Your task to perform on an android device: open a bookmark in the chrome app Image 0: 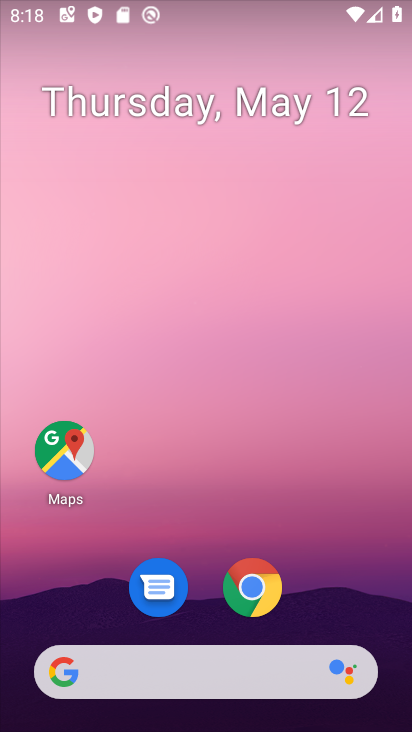
Step 0: drag from (351, 516) to (327, 140)
Your task to perform on an android device: open a bookmark in the chrome app Image 1: 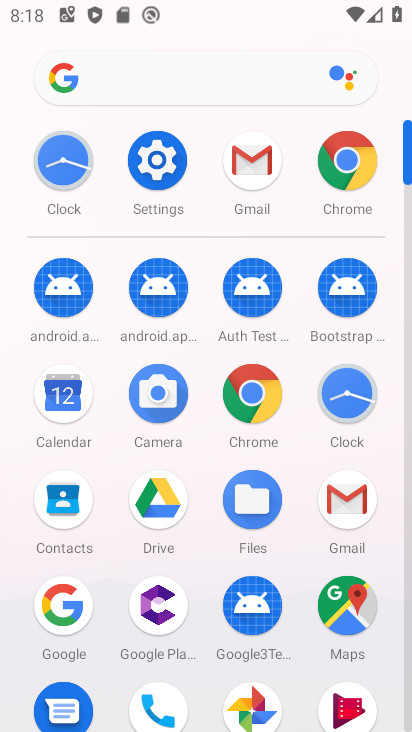
Step 1: click (243, 400)
Your task to perform on an android device: open a bookmark in the chrome app Image 2: 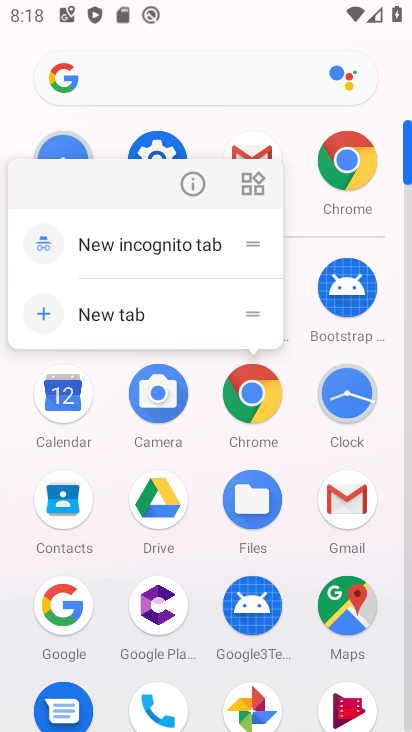
Step 2: click (258, 391)
Your task to perform on an android device: open a bookmark in the chrome app Image 3: 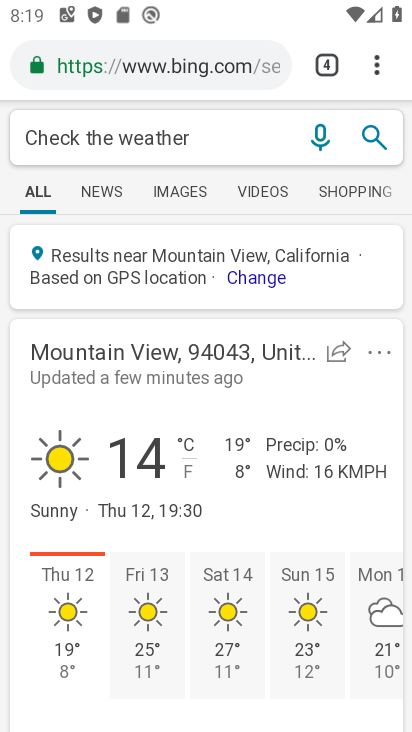
Step 3: click (371, 72)
Your task to perform on an android device: open a bookmark in the chrome app Image 4: 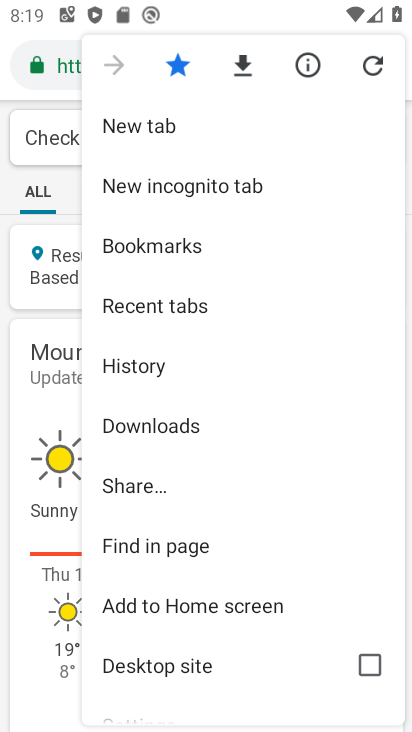
Step 4: click (183, 237)
Your task to perform on an android device: open a bookmark in the chrome app Image 5: 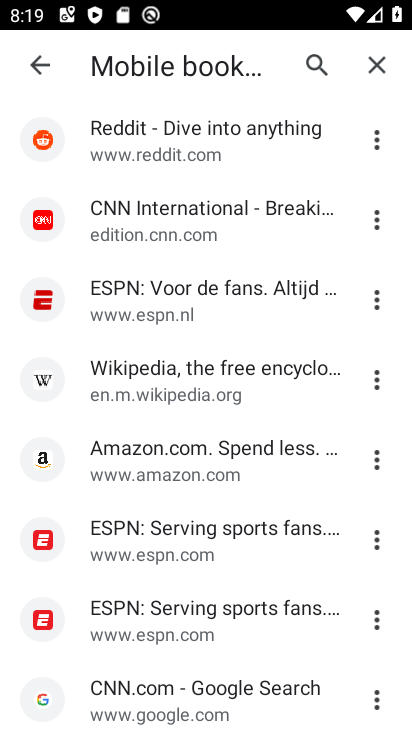
Step 5: task complete